Your task to perform on an android device: turn on improve location accuracy Image 0: 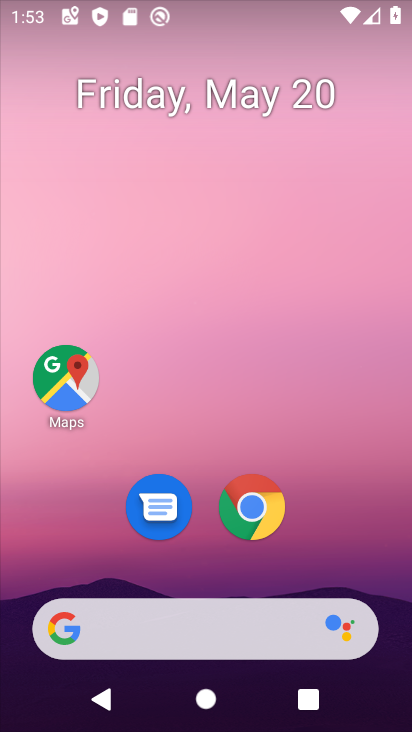
Step 0: drag from (161, 714) to (200, 101)
Your task to perform on an android device: turn on improve location accuracy Image 1: 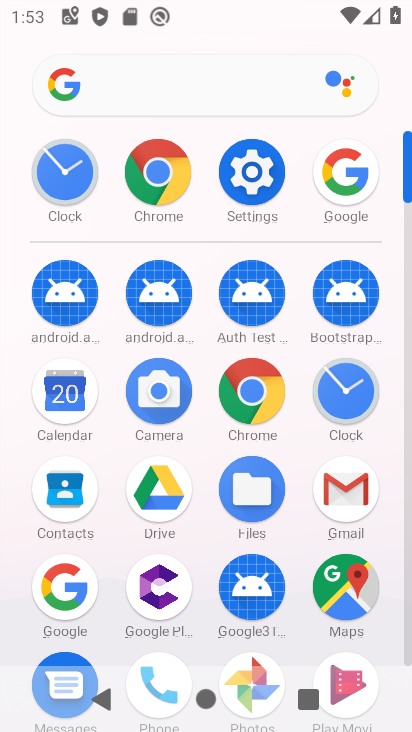
Step 1: click (252, 168)
Your task to perform on an android device: turn on improve location accuracy Image 2: 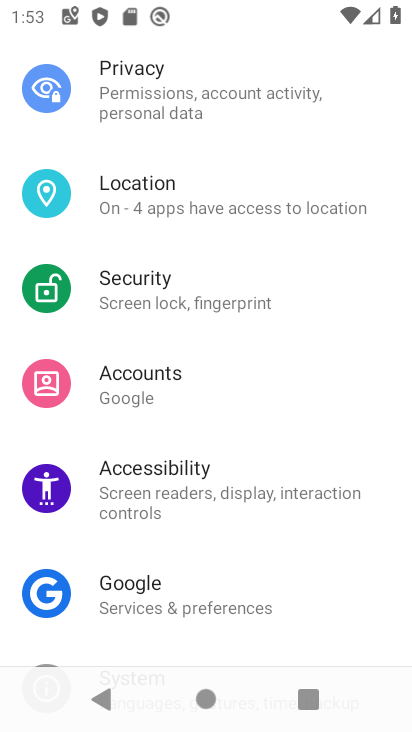
Step 2: drag from (173, 565) to (183, 176)
Your task to perform on an android device: turn on improve location accuracy Image 3: 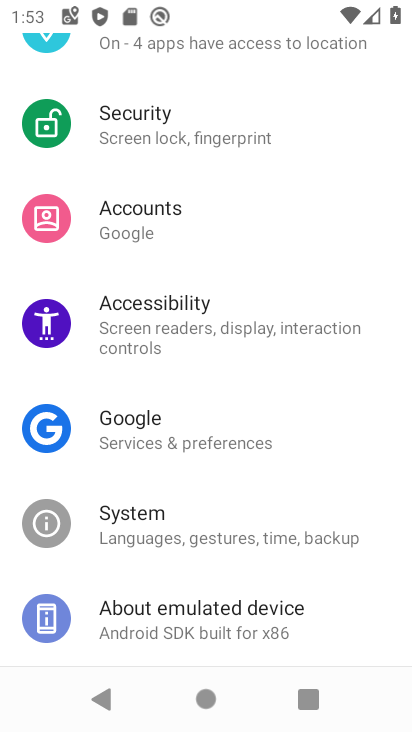
Step 3: drag from (187, 146) to (180, 509)
Your task to perform on an android device: turn on improve location accuracy Image 4: 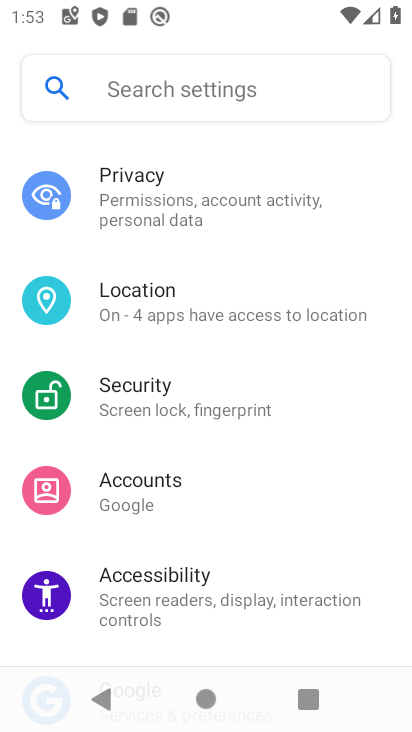
Step 4: click (135, 298)
Your task to perform on an android device: turn on improve location accuracy Image 5: 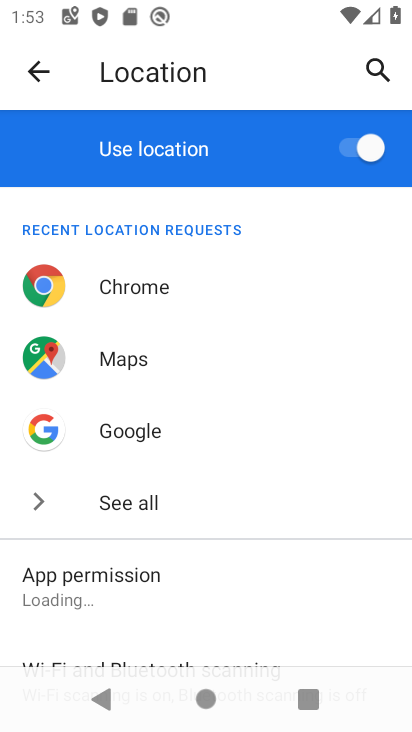
Step 5: drag from (197, 605) to (234, 308)
Your task to perform on an android device: turn on improve location accuracy Image 6: 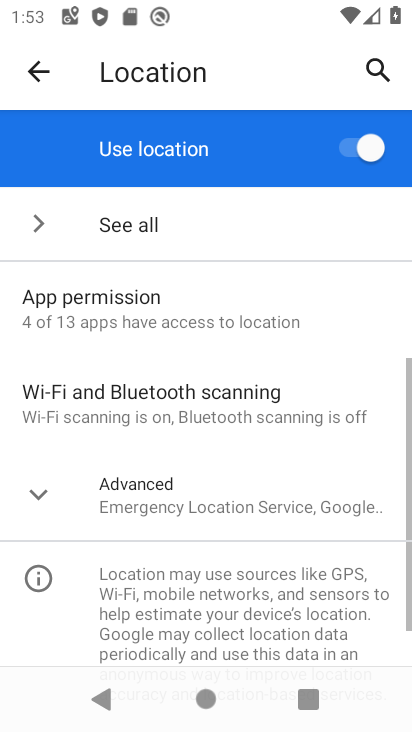
Step 6: drag from (183, 566) to (207, 274)
Your task to perform on an android device: turn on improve location accuracy Image 7: 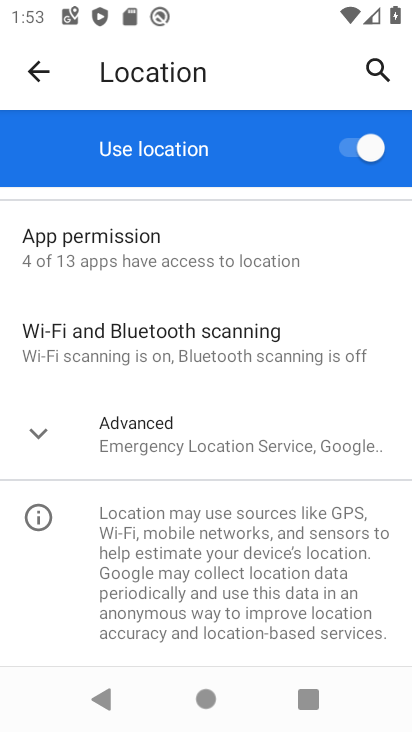
Step 7: click (148, 435)
Your task to perform on an android device: turn on improve location accuracy Image 8: 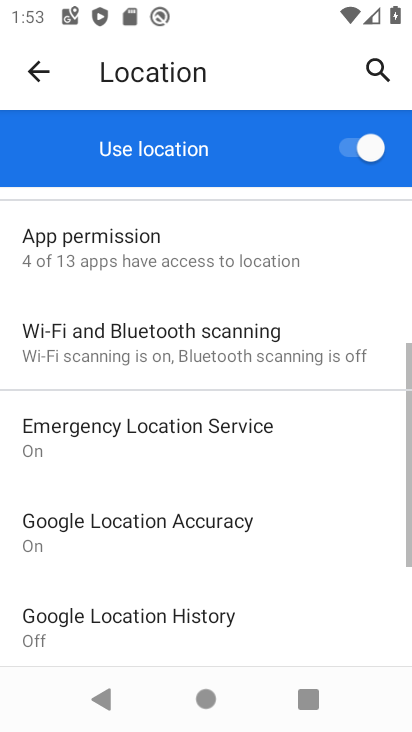
Step 8: drag from (177, 600) to (193, 257)
Your task to perform on an android device: turn on improve location accuracy Image 9: 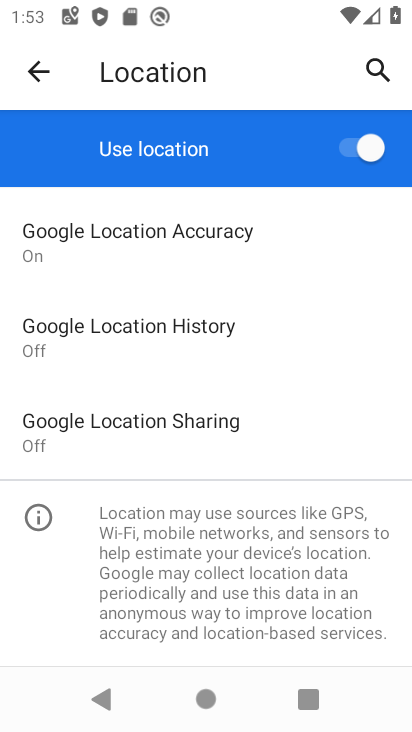
Step 9: click (161, 221)
Your task to perform on an android device: turn on improve location accuracy Image 10: 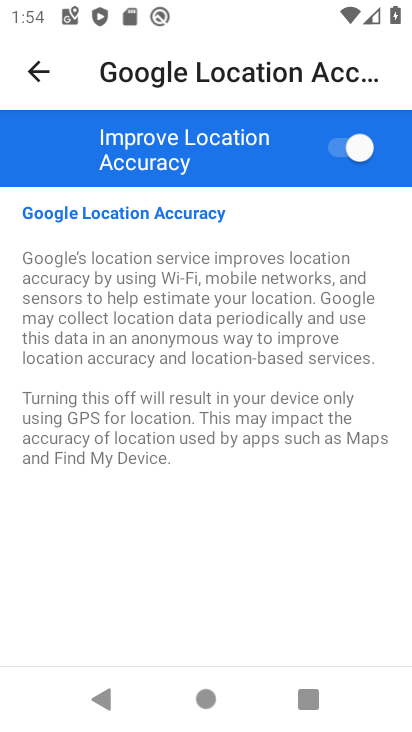
Step 10: task complete